Your task to perform on an android device: Go to internet settings Image 0: 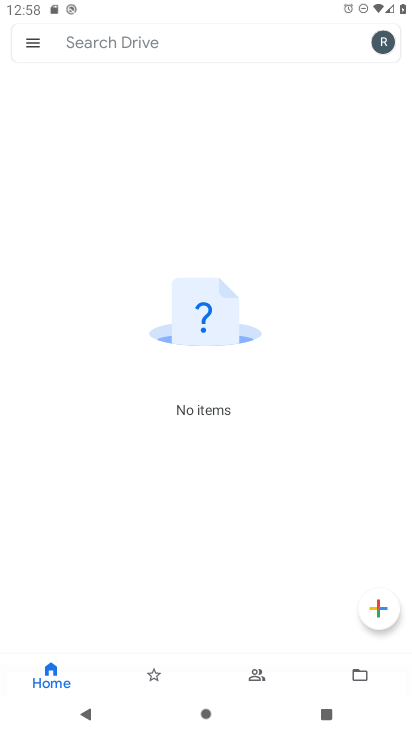
Step 0: press home button
Your task to perform on an android device: Go to internet settings Image 1: 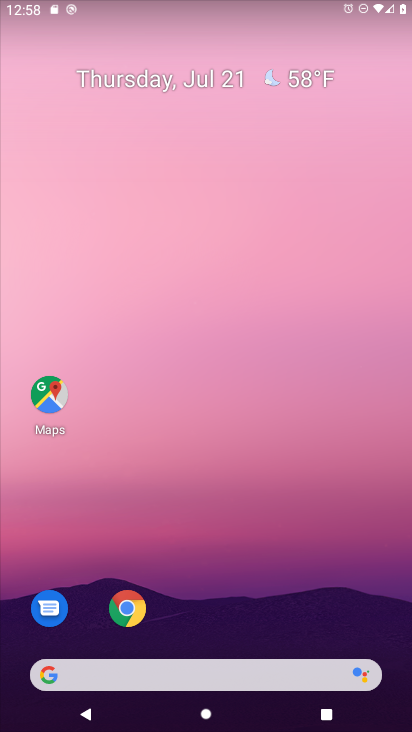
Step 1: drag from (228, 661) to (269, 83)
Your task to perform on an android device: Go to internet settings Image 2: 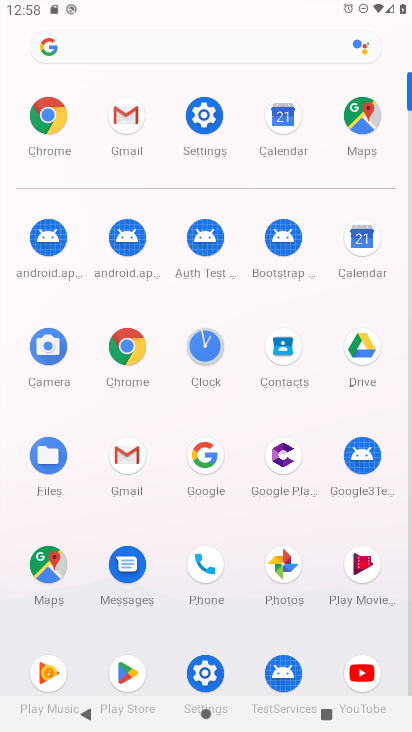
Step 2: click (207, 102)
Your task to perform on an android device: Go to internet settings Image 3: 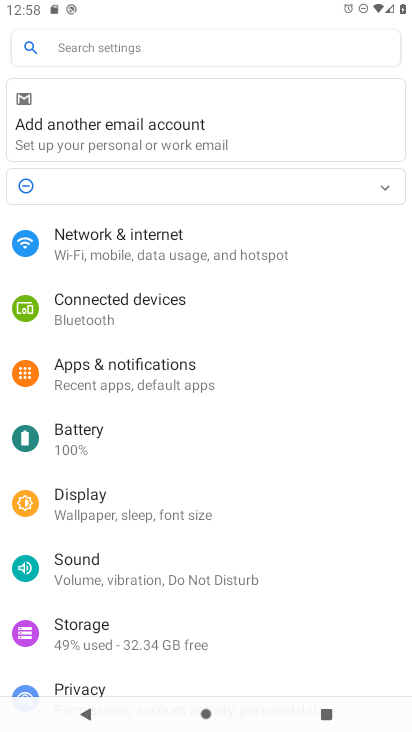
Step 3: click (160, 249)
Your task to perform on an android device: Go to internet settings Image 4: 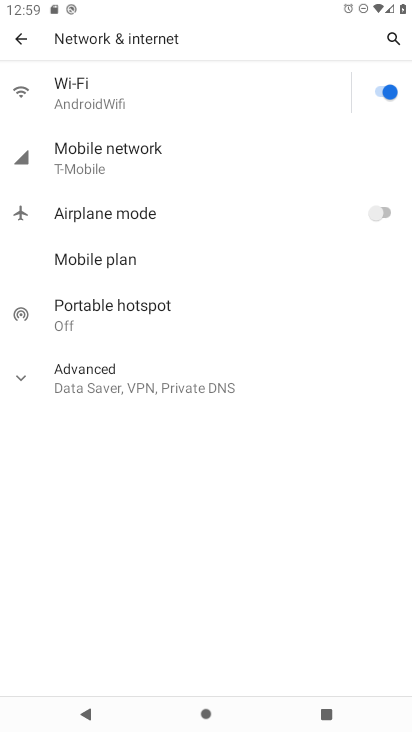
Step 4: task complete